Your task to perform on an android device: Open Google Maps and go to "Timeline" Image 0: 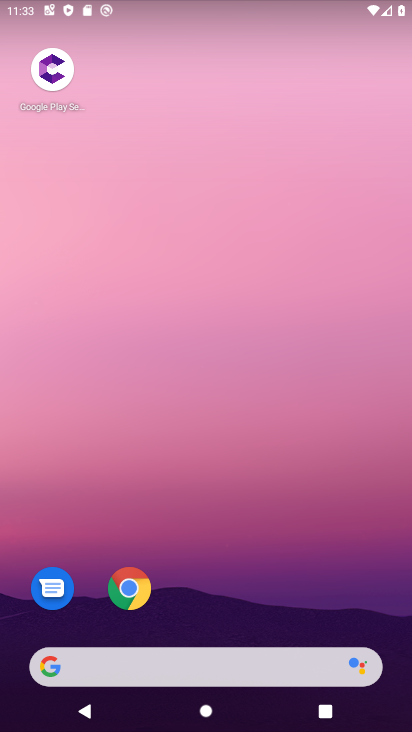
Step 0: drag from (226, 534) to (271, 0)
Your task to perform on an android device: Open Google Maps and go to "Timeline" Image 1: 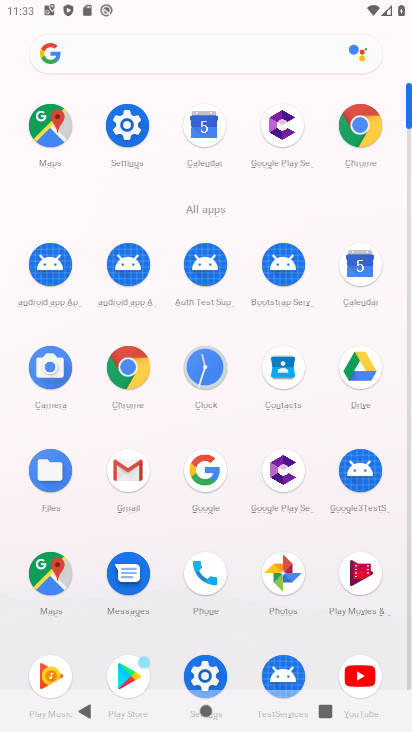
Step 1: click (54, 566)
Your task to perform on an android device: Open Google Maps and go to "Timeline" Image 2: 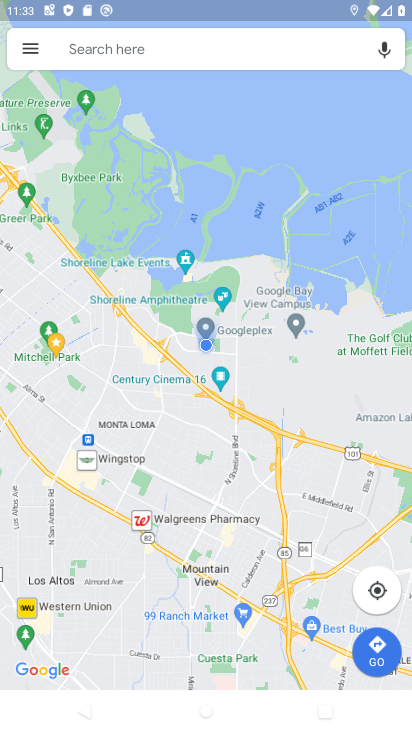
Step 2: click (29, 46)
Your task to perform on an android device: Open Google Maps and go to "Timeline" Image 3: 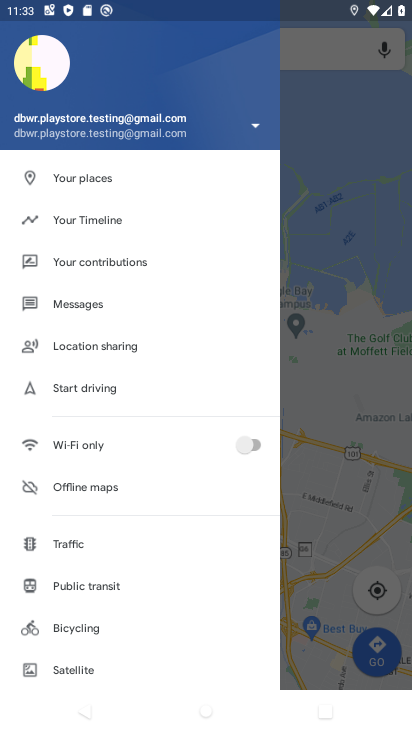
Step 3: click (83, 217)
Your task to perform on an android device: Open Google Maps and go to "Timeline" Image 4: 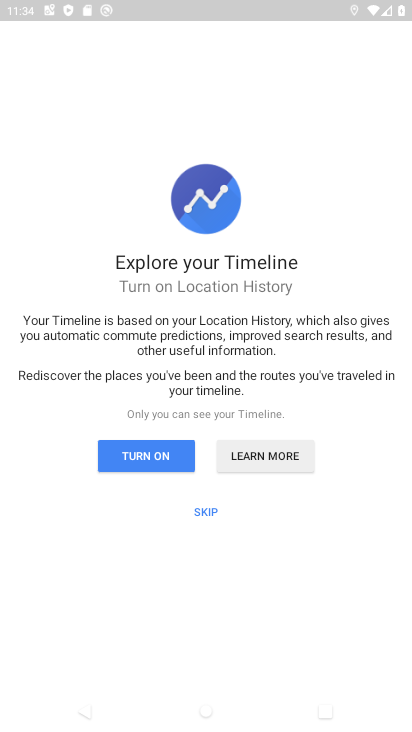
Step 4: task complete